Your task to perform on an android device: turn off airplane mode Image 0: 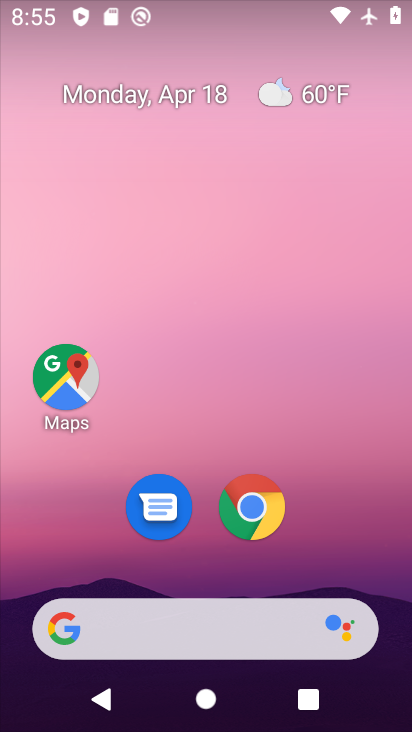
Step 0: drag from (328, 541) to (292, 165)
Your task to perform on an android device: turn off airplane mode Image 1: 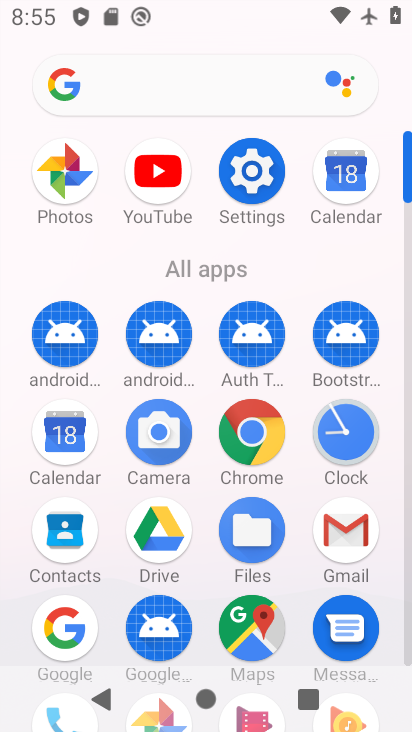
Step 1: click (273, 181)
Your task to perform on an android device: turn off airplane mode Image 2: 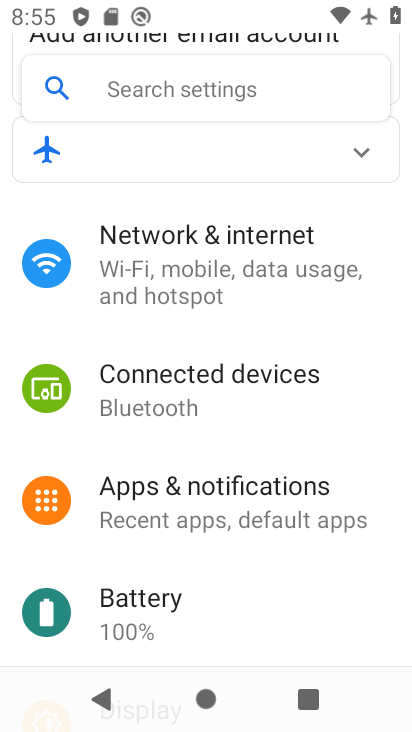
Step 2: click (311, 272)
Your task to perform on an android device: turn off airplane mode Image 3: 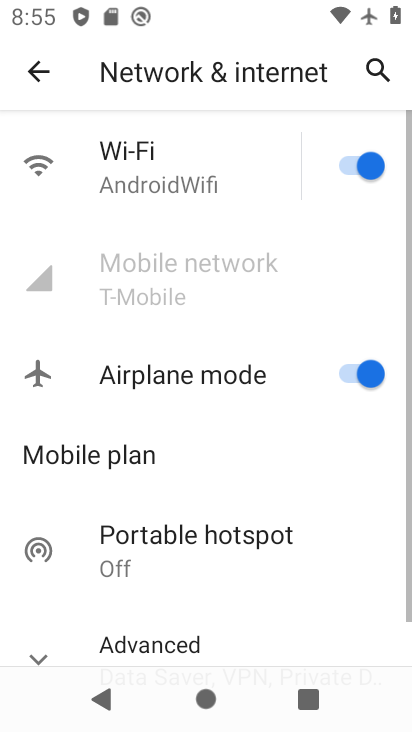
Step 3: click (373, 380)
Your task to perform on an android device: turn off airplane mode Image 4: 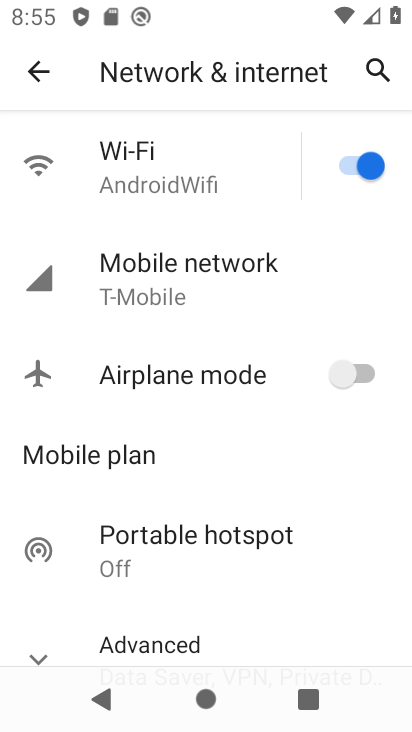
Step 4: task complete